Your task to perform on an android device: change notification settings in the gmail app Image 0: 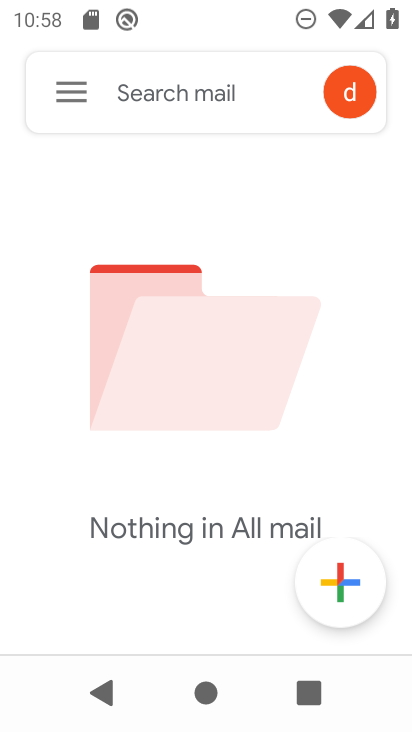
Step 0: click (72, 83)
Your task to perform on an android device: change notification settings in the gmail app Image 1: 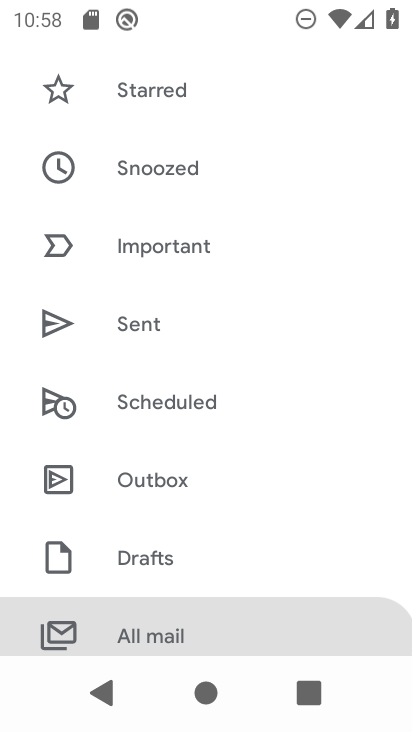
Step 1: drag from (182, 591) to (159, 135)
Your task to perform on an android device: change notification settings in the gmail app Image 2: 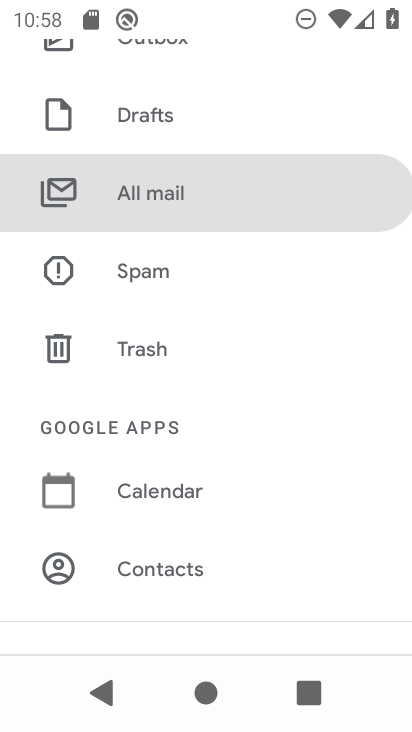
Step 2: drag from (197, 592) to (200, 84)
Your task to perform on an android device: change notification settings in the gmail app Image 3: 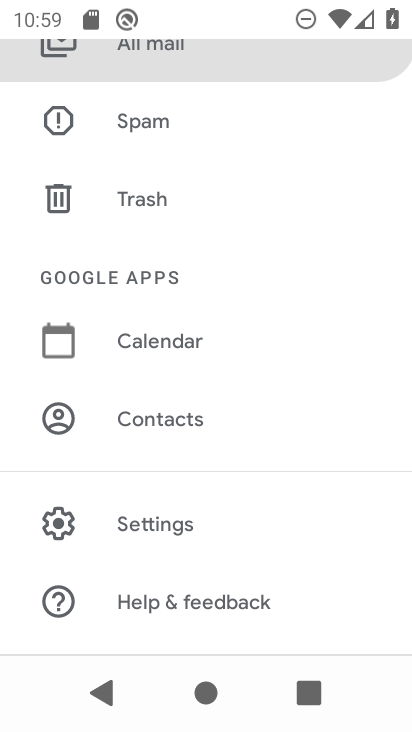
Step 3: click (141, 516)
Your task to perform on an android device: change notification settings in the gmail app Image 4: 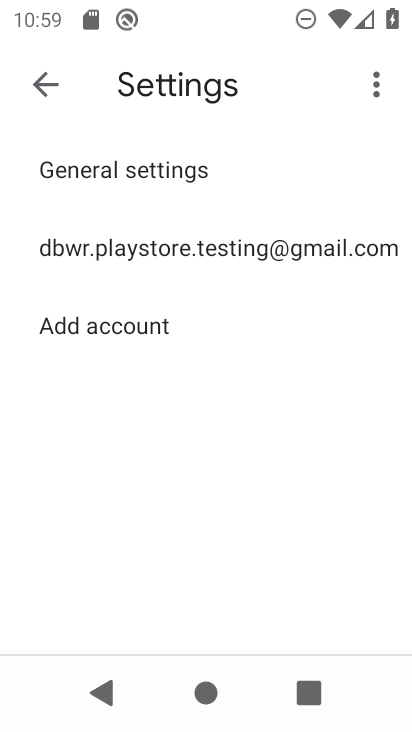
Step 4: click (86, 233)
Your task to perform on an android device: change notification settings in the gmail app Image 5: 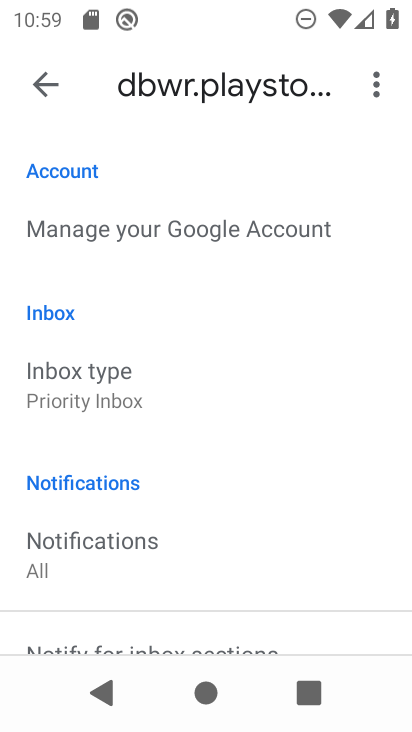
Step 5: click (93, 553)
Your task to perform on an android device: change notification settings in the gmail app Image 6: 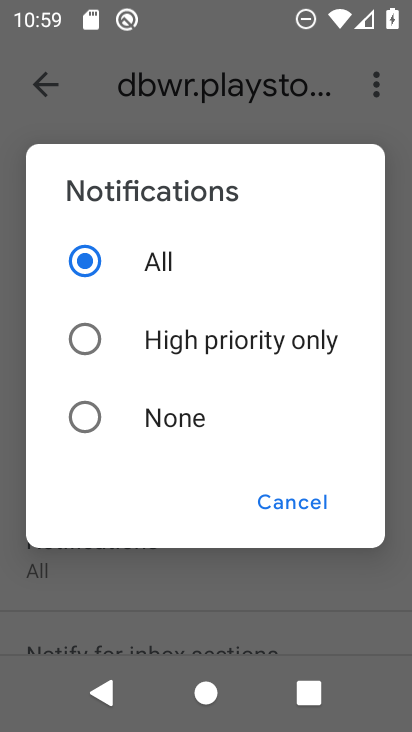
Step 6: click (148, 329)
Your task to perform on an android device: change notification settings in the gmail app Image 7: 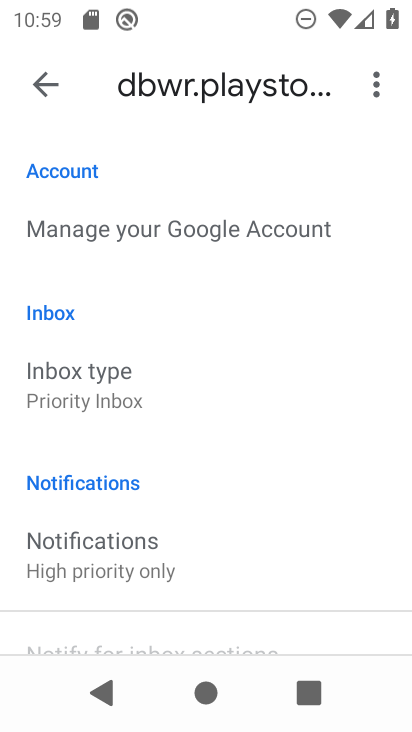
Step 7: task complete